Your task to perform on an android device: What's the weather today? Image 0: 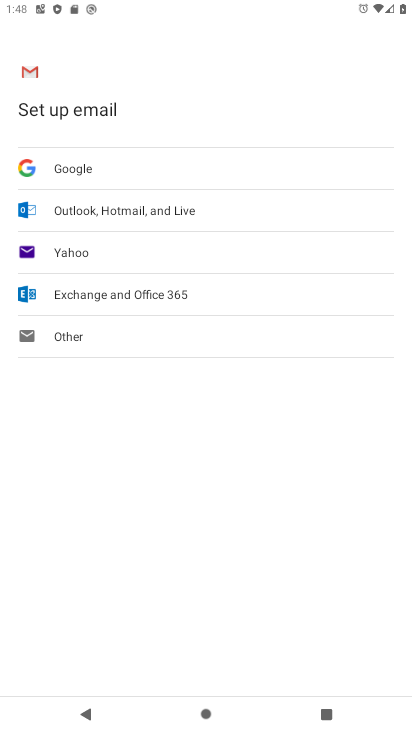
Step 0: press home button
Your task to perform on an android device: What's the weather today? Image 1: 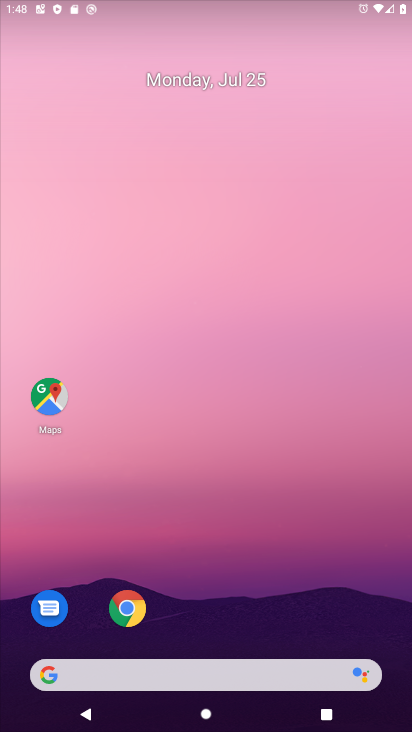
Step 1: drag from (267, 571) to (243, 32)
Your task to perform on an android device: What's the weather today? Image 2: 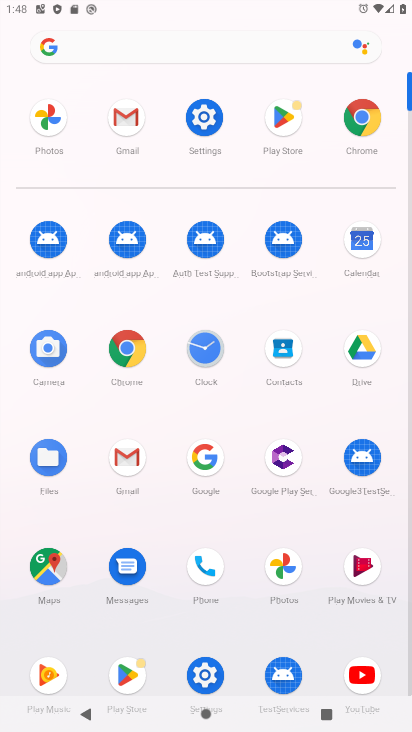
Step 2: click (358, 116)
Your task to perform on an android device: What's the weather today? Image 3: 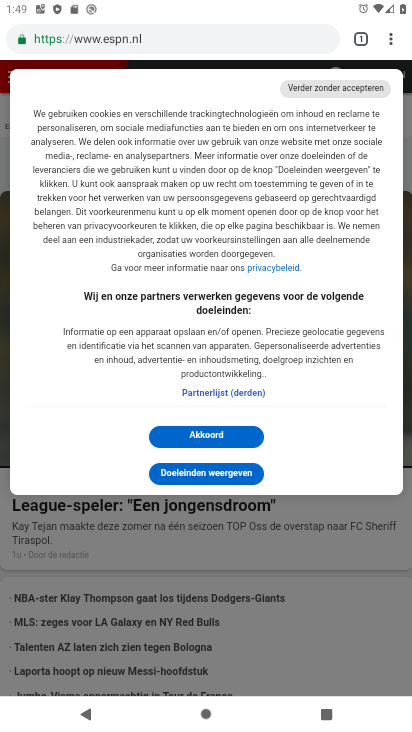
Step 3: click (187, 47)
Your task to perform on an android device: What's the weather today? Image 4: 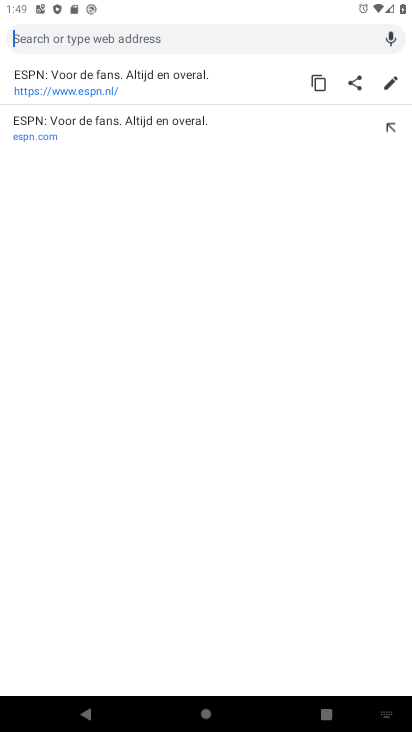
Step 4: type "weather"
Your task to perform on an android device: What's the weather today? Image 5: 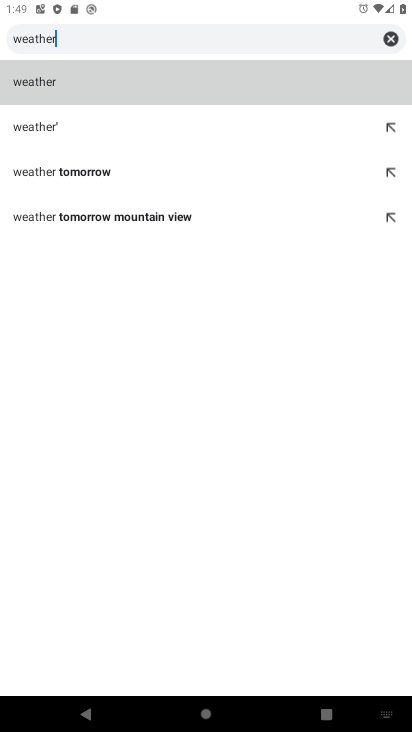
Step 5: click (35, 79)
Your task to perform on an android device: What's the weather today? Image 6: 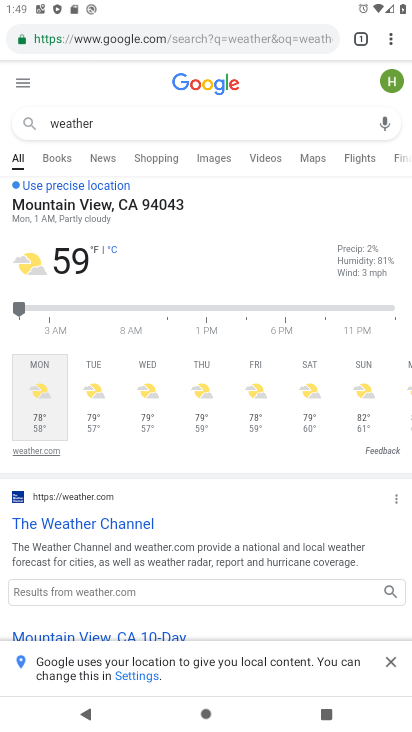
Step 6: task complete